Your task to perform on an android device: change the clock display to show seconds Image 0: 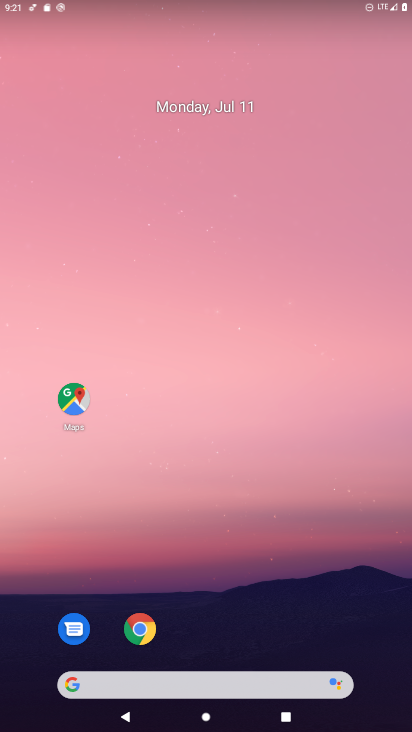
Step 0: drag from (251, 623) to (282, 36)
Your task to perform on an android device: change the clock display to show seconds Image 1: 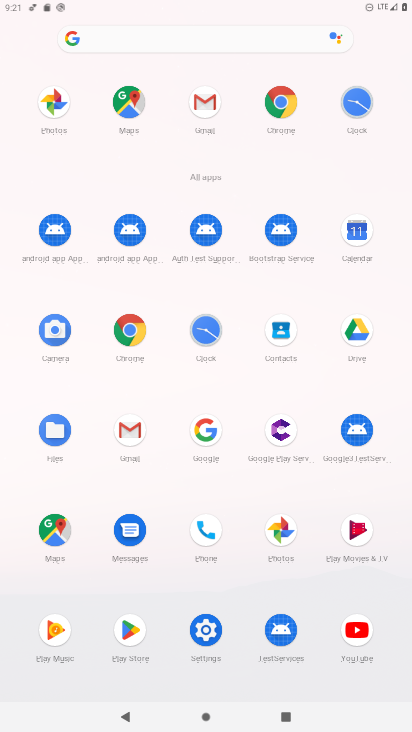
Step 1: click (356, 148)
Your task to perform on an android device: change the clock display to show seconds Image 2: 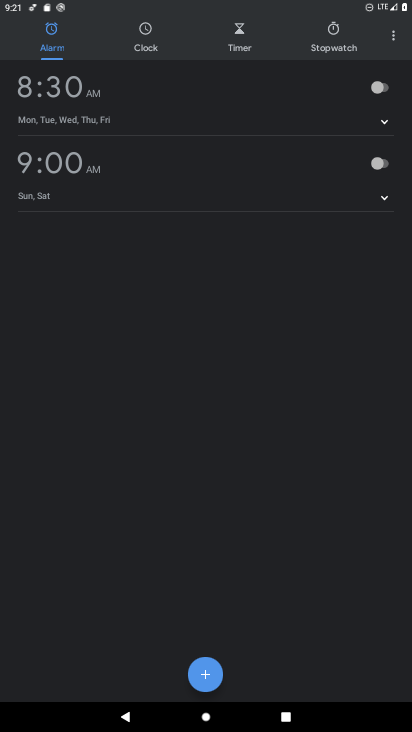
Step 2: click (399, 28)
Your task to perform on an android device: change the clock display to show seconds Image 3: 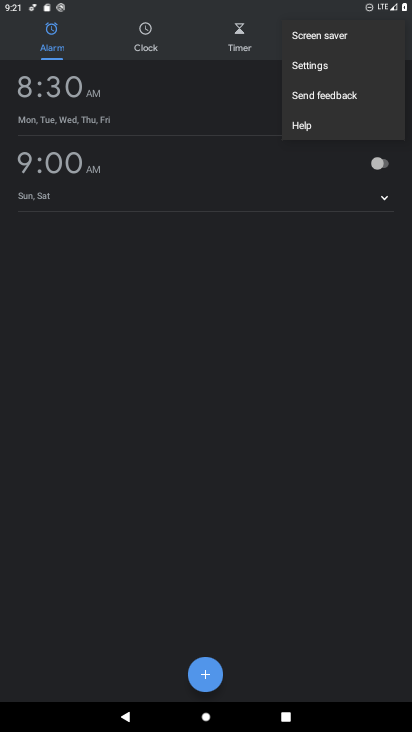
Step 3: click (320, 75)
Your task to perform on an android device: change the clock display to show seconds Image 4: 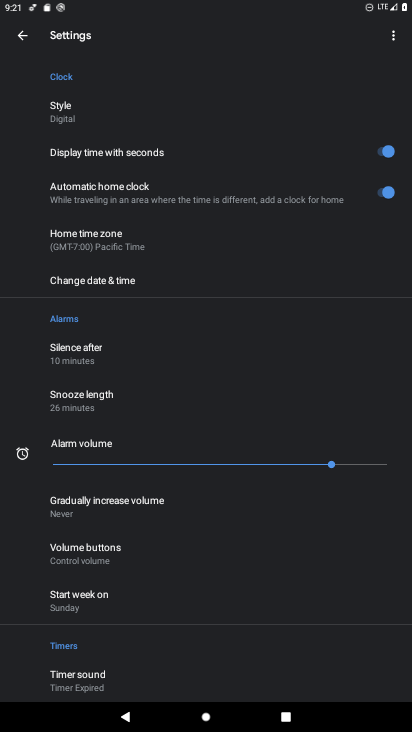
Step 4: task complete